Your task to perform on an android device: Go to sound settings Image 0: 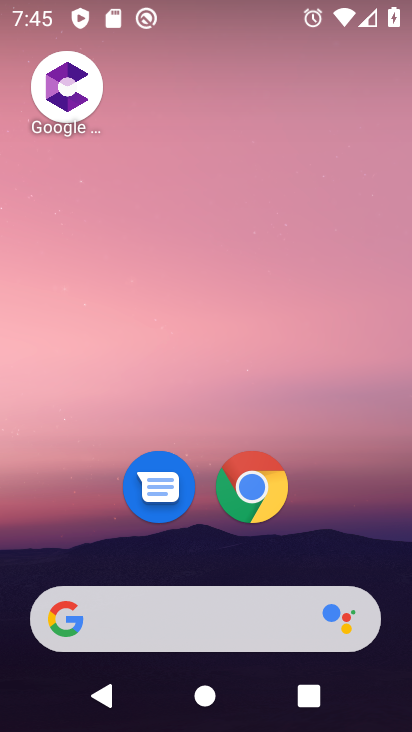
Step 0: drag from (250, 576) to (349, 126)
Your task to perform on an android device: Go to sound settings Image 1: 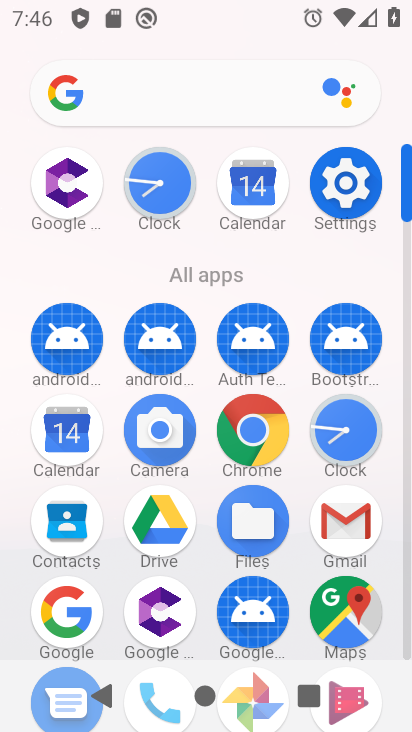
Step 1: click (352, 187)
Your task to perform on an android device: Go to sound settings Image 2: 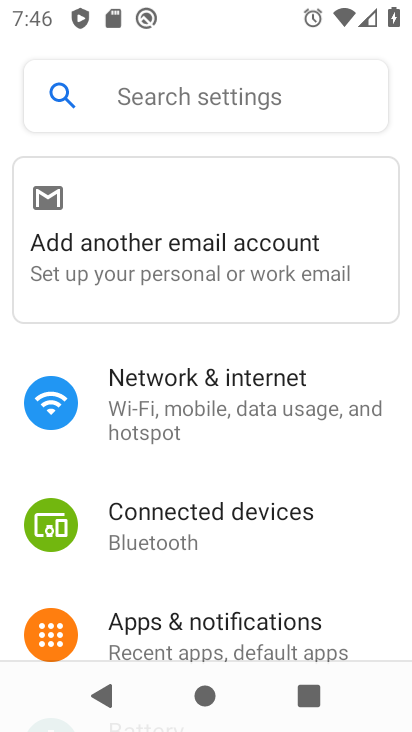
Step 2: drag from (209, 576) to (259, 265)
Your task to perform on an android device: Go to sound settings Image 3: 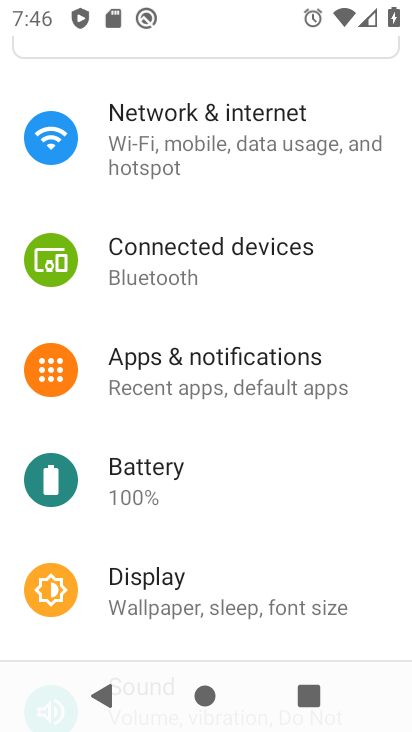
Step 3: drag from (212, 537) to (245, 250)
Your task to perform on an android device: Go to sound settings Image 4: 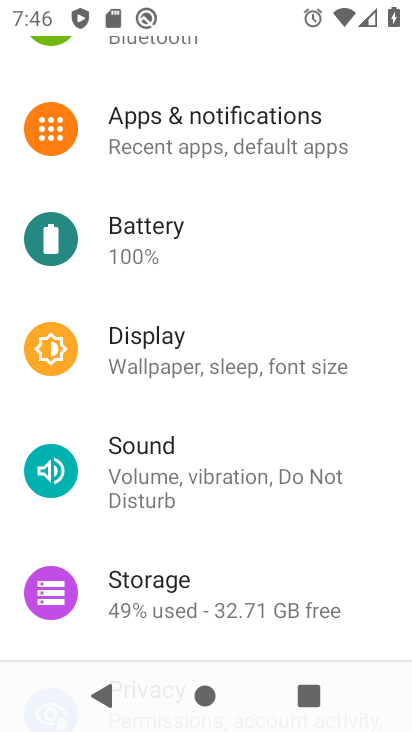
Step 4: click (194, 468)
Your task to perform on an android device: Go to sound settings Image 5: 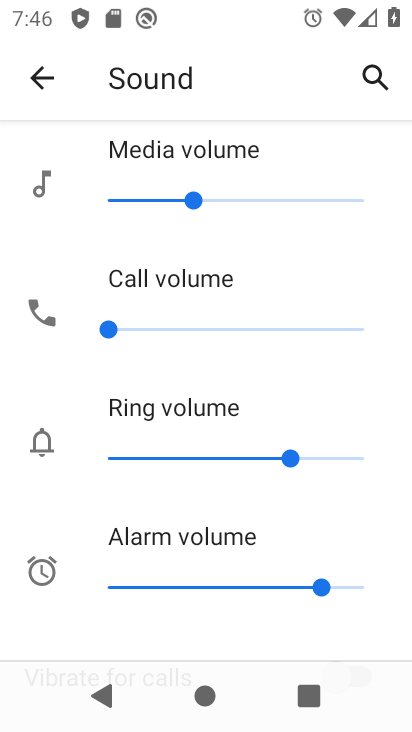
Step 5: task complete